Your task to perform on an android device: Play the last video I watched on Youtube Image 0: 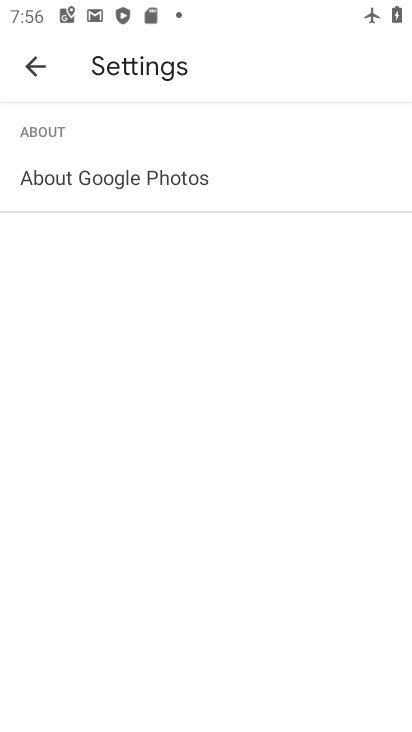
Step 0: press home button
Your task to perform on an android device: Play the last video I watched on Youtube Image 1: 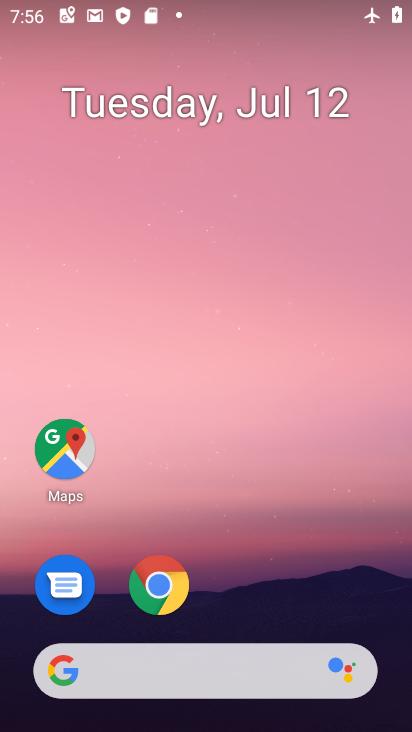
Step 1: drag from (282, 550) to (243, 29)
Your task to perform on an android device: Play the last video I watched on Youtube Image 2: 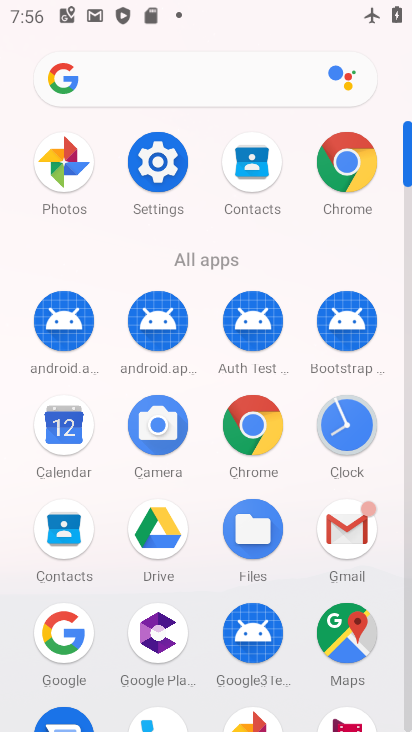
Step 2: drag from (212, 422) to (236, 123)
Your task to perform on an android device: Play the last video I watched on Youtube Image 3: 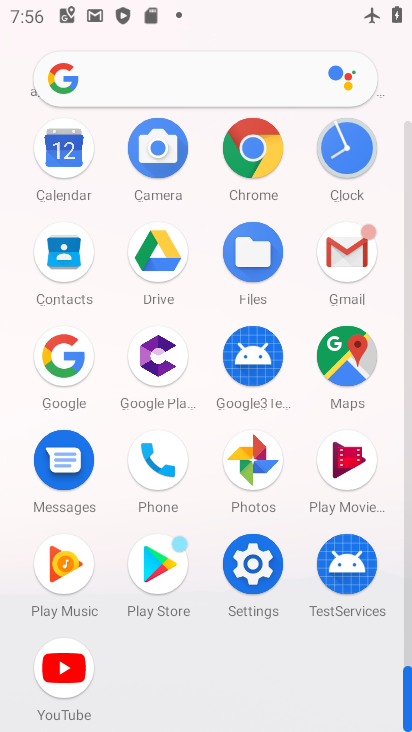
Step 3: click (68, 669)
Your task to perform on an android device: Play the last video I watched on Youtube Image 4: 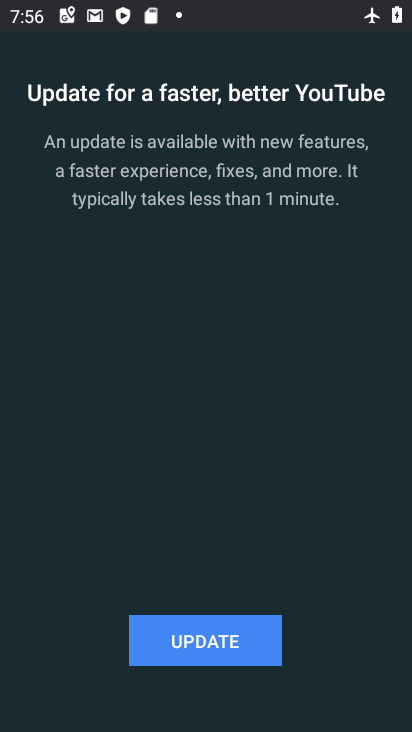
Step 4: click (252, 639)
Your task to perform on an android device: Play the last video I watched on Youtube Image 5: 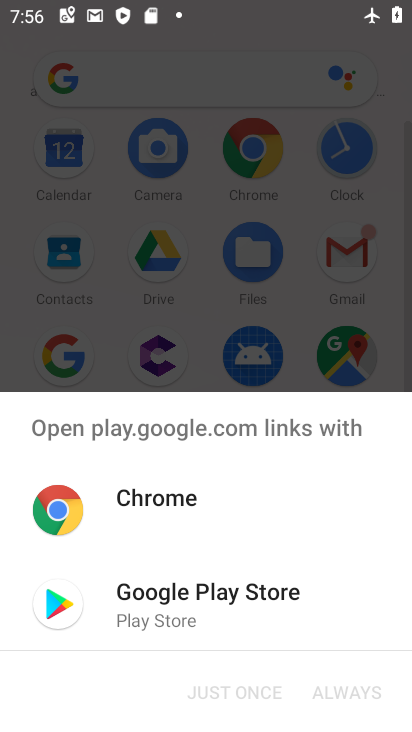
Step 5: click (175, 582)
Your task to perform on an android device: Play the last video I watched on Youtube Image 6: 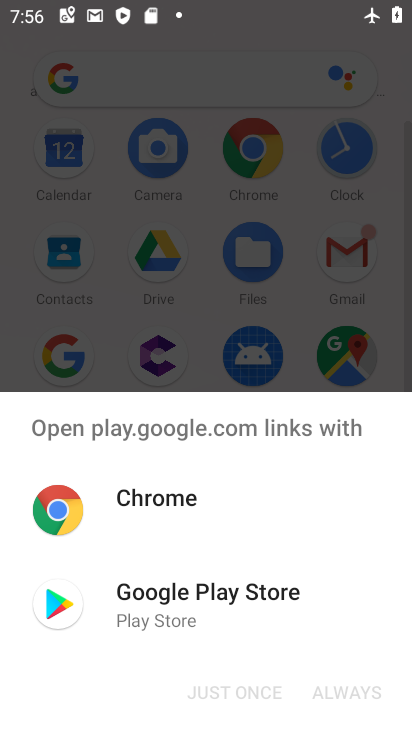
Step 6: click (176, 595)
Your task to perform on an android device: Play the last video I watched on Youtube Image 7: 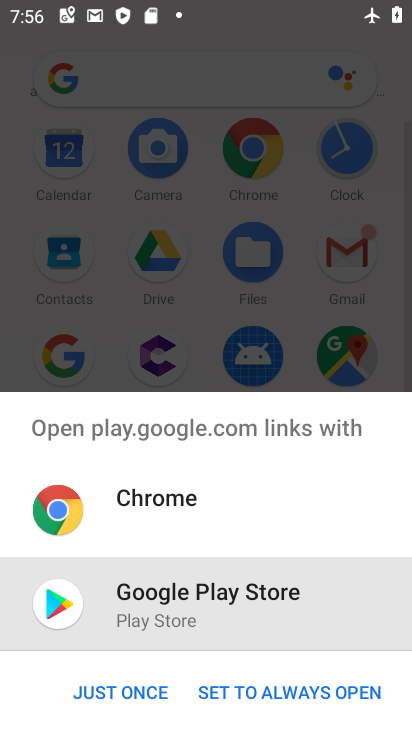
Step 7: click (131, 689)
Your task to perform on an android device: Play the last video I watched on Youtube Image 8: 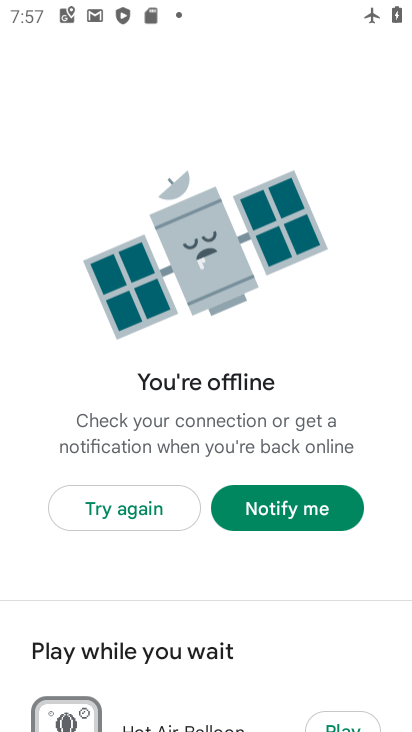
Step 8: task complete